Your task to perform on an android device: star an email in the gmail app Image 0: 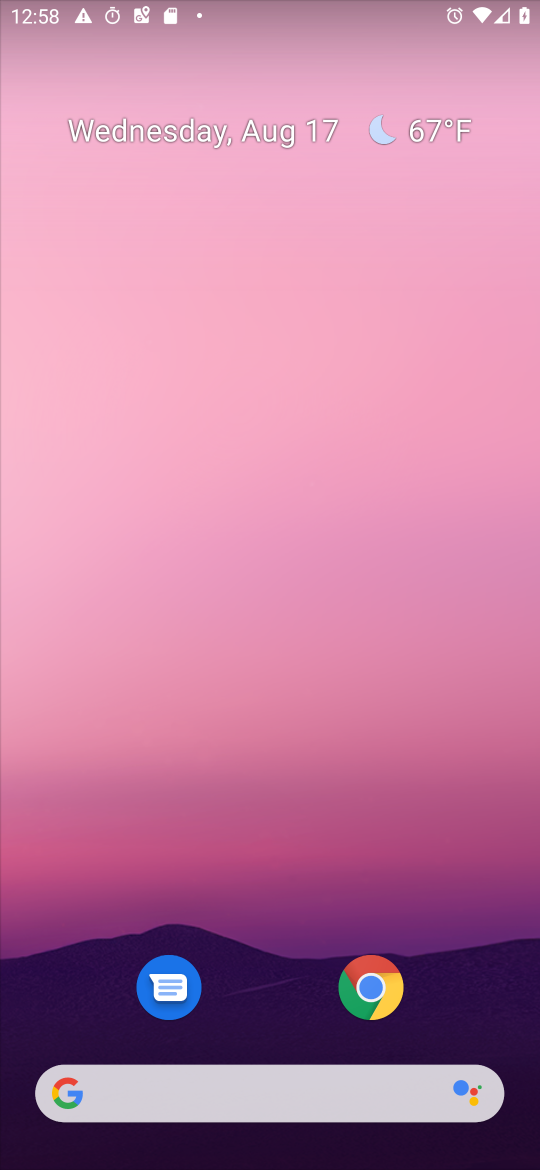
Step 0: drag from (23, 1121) to (297, 44)
Your task to perform on an android device: star an email in the gmail app Image 1: 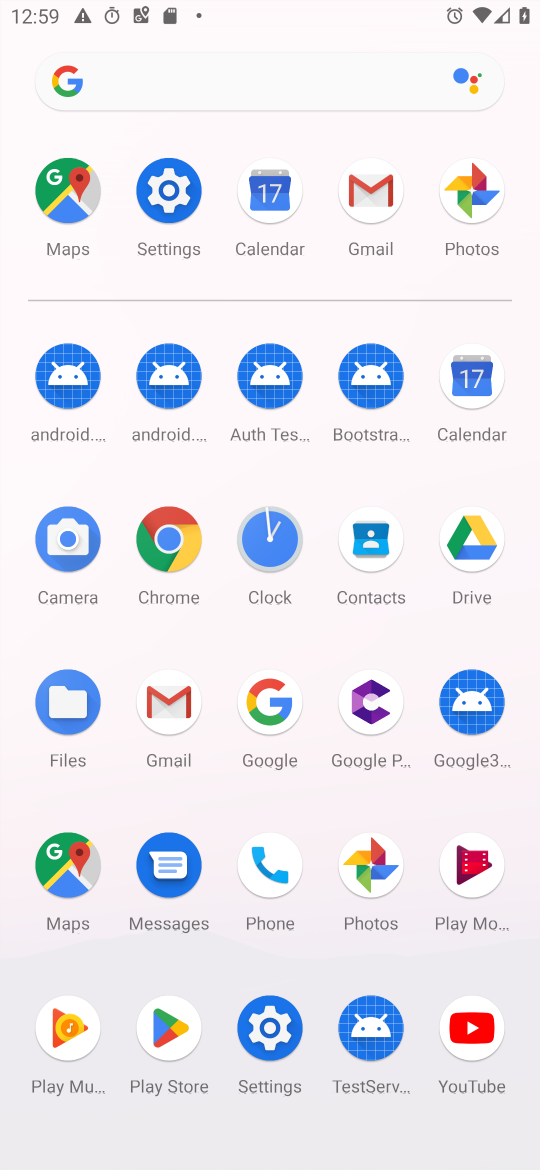
Step 1: click (194, 702)
Your task to perform on an android device: star an email in the gmail app Image 2: 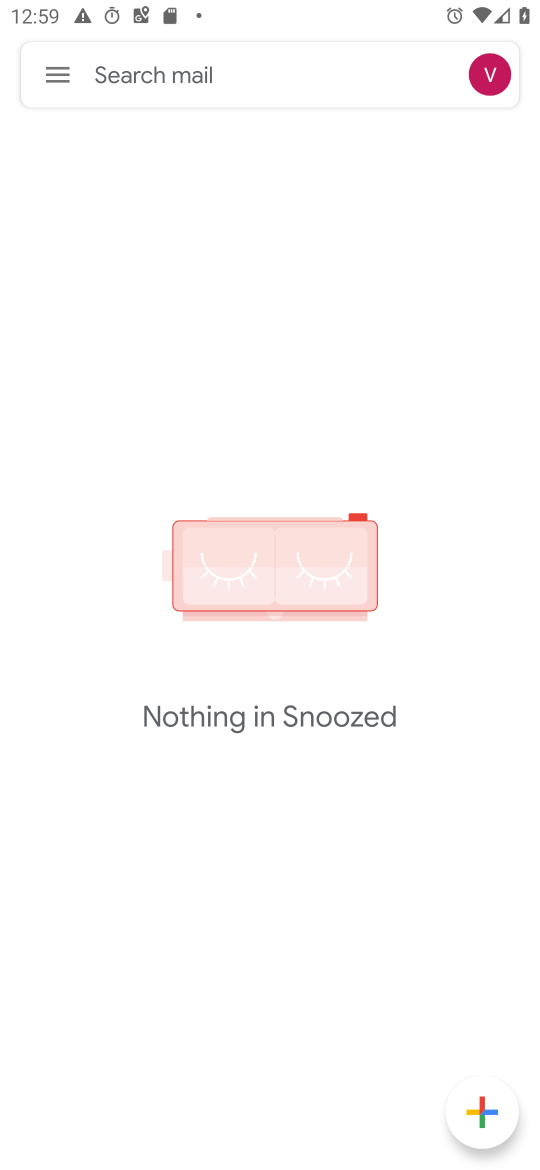
Step 2: click (73, 91)
Your task to perform on an android device: star an email in the gmail app Image 3: 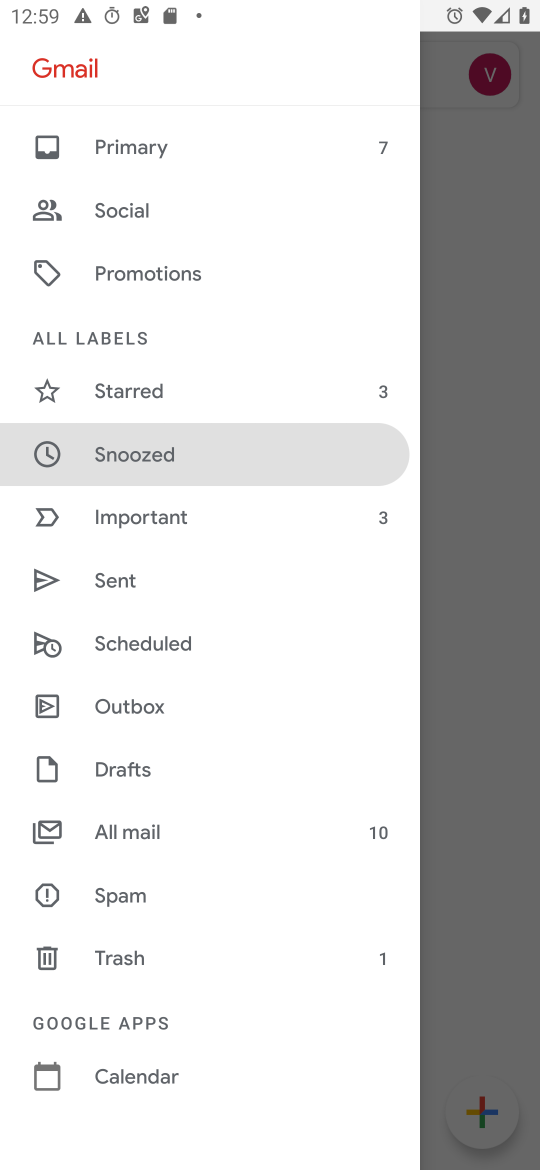
Step 3: click (73, 91)
Your task to perform on an android device: star an email in the gmail app Image 4: 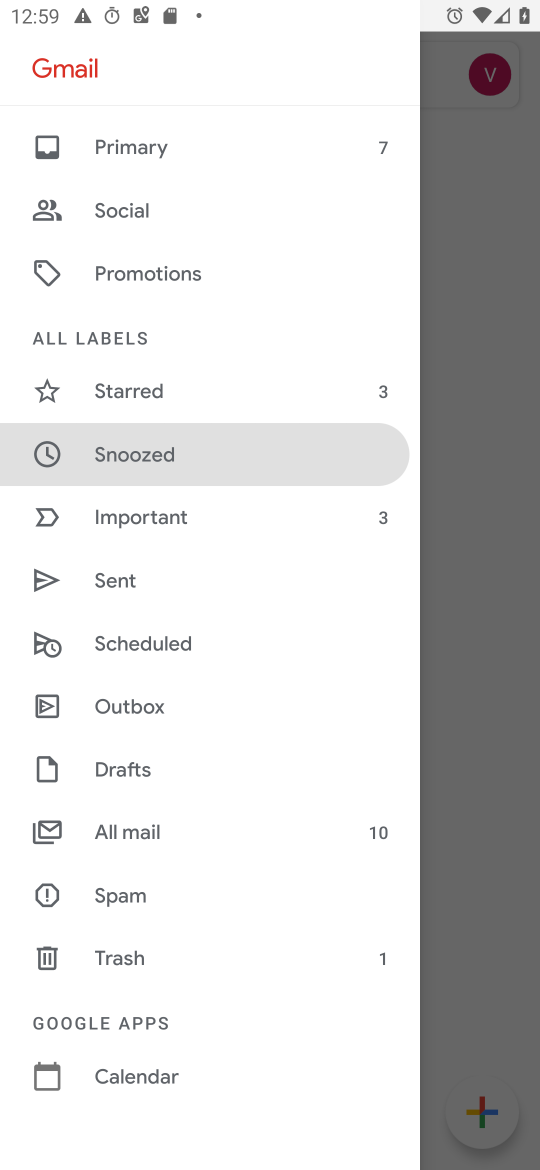
Step 4: click (137, 391)
Your task to perform on an android device: star an email in the gmail app Image 5: 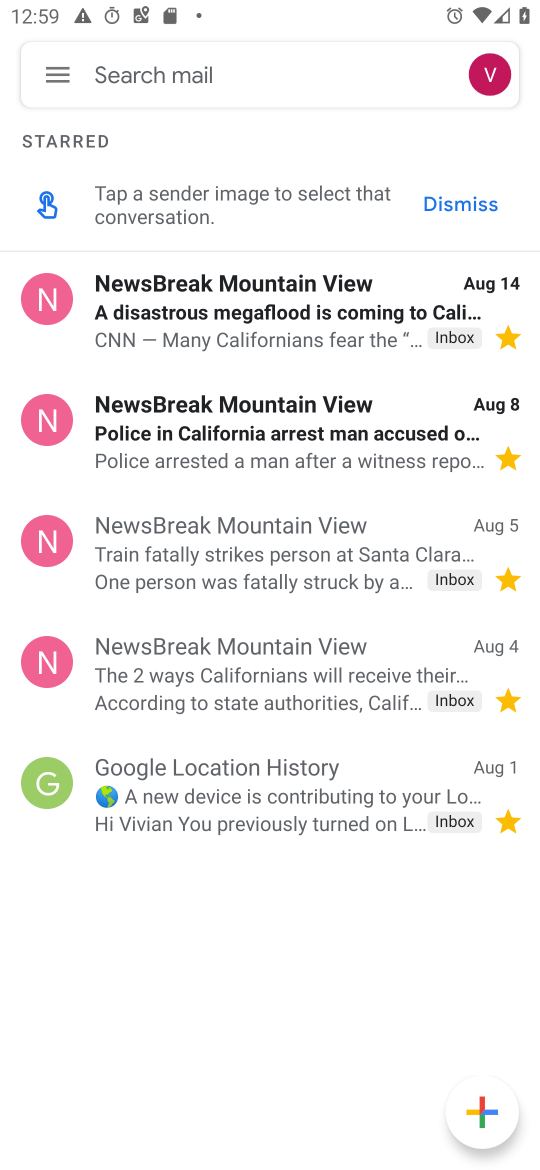
Step 5: task complete